Your task to perform on an android device: check android version Image 0: 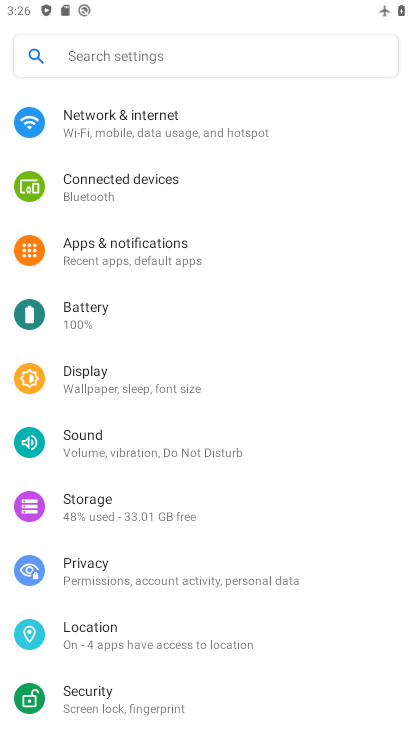
Step 0: drag from (193, 622) to (211, 179)
Your task to perform on an android device: check android version Image 1: 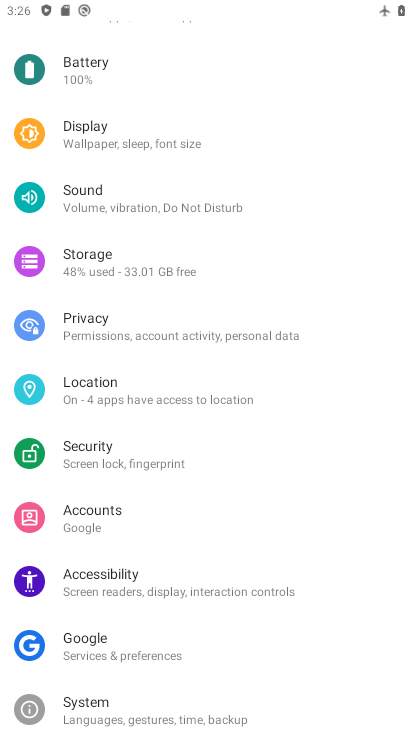
Step 1: drag from (217, 595) to (294, 123)
Your task to perform on an android device: check android version Image 2: 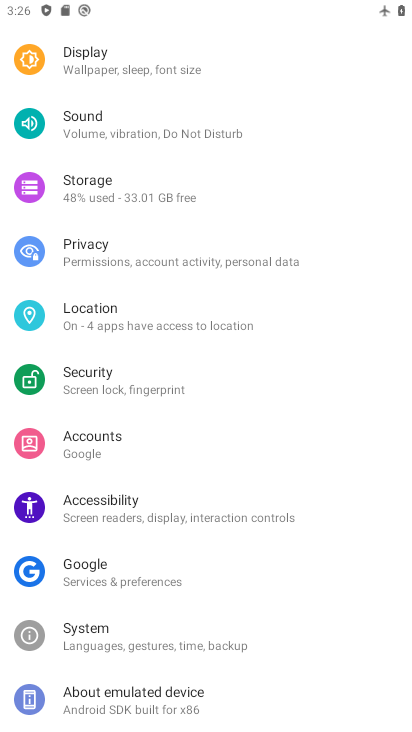
Step 2: click (131, 695)
Your task to perform on an android device: check android version Image 3: 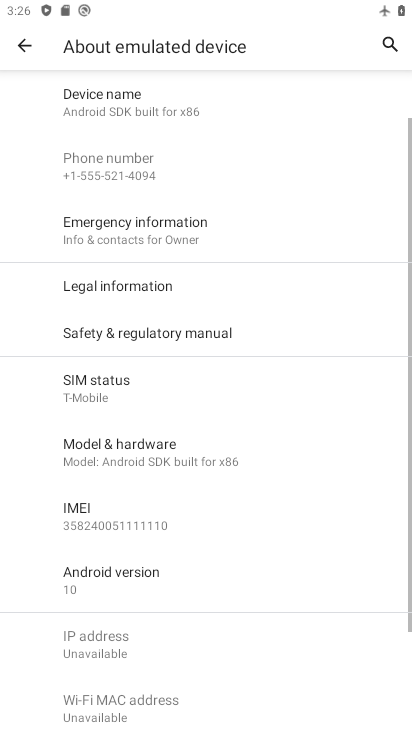
Step 3: drag from (186, 662) to (177, 267)
Your task to perform on an android device: check android version Image 4: 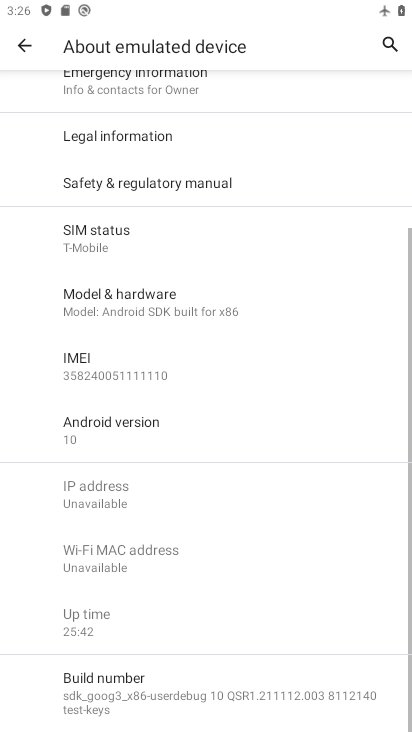
Step 4: click (108, 436)
Your task to perform on an android device: check android version Image 5: 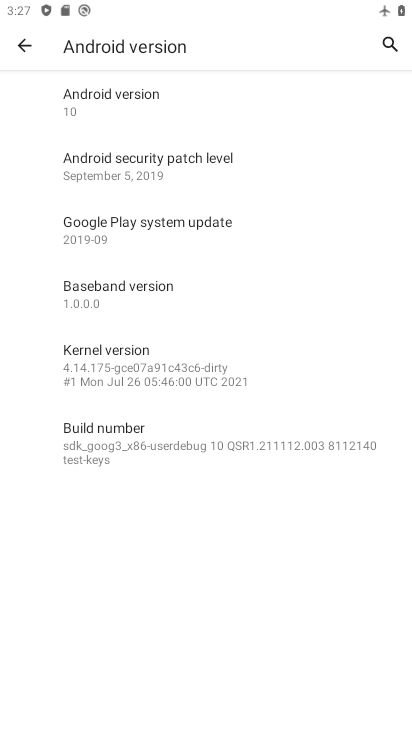
Step 5: click (77, 79)
Your task to perform on an android device: check android version Image 6: 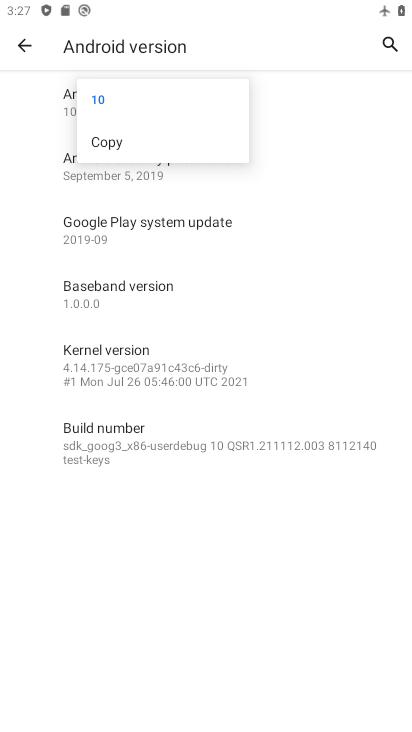
Step 6: click (283, 118)
Your task to perform on an android device: check android version Image 7: 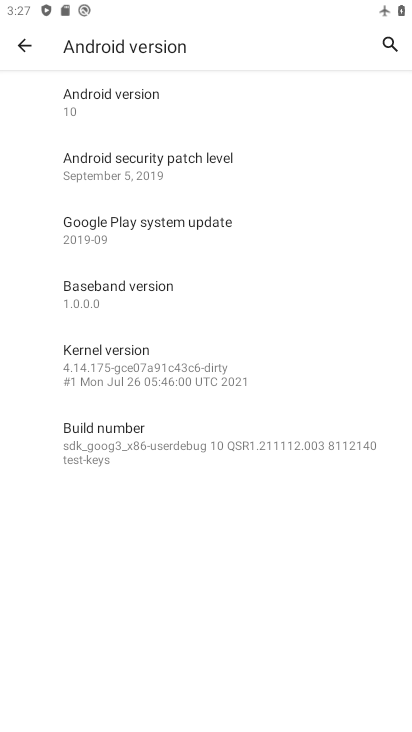
Step 7: click (73, 112)
Your task to perform on an android device: check android version Image 8: 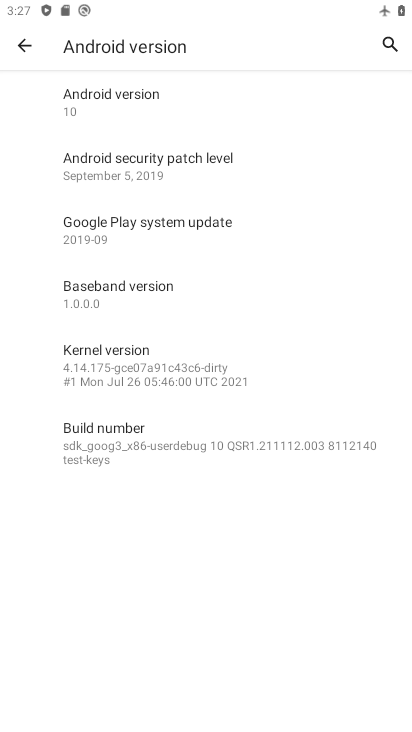
Step 8: task complete